Your task to perform on an android device: Open Google Image 0: 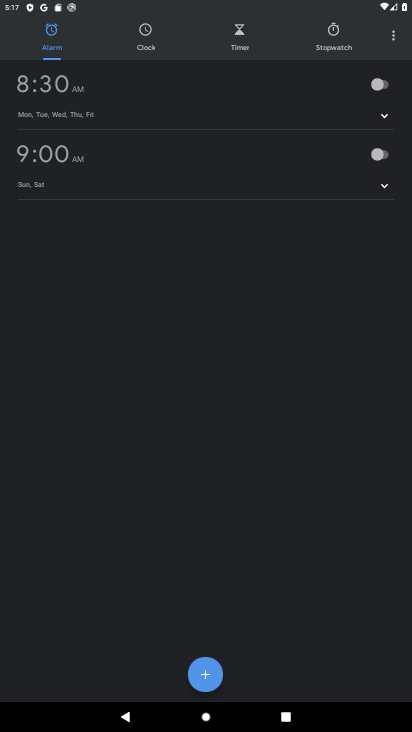
Step 0: press home button
Your task to perform on an android device: Open Google Image 1: 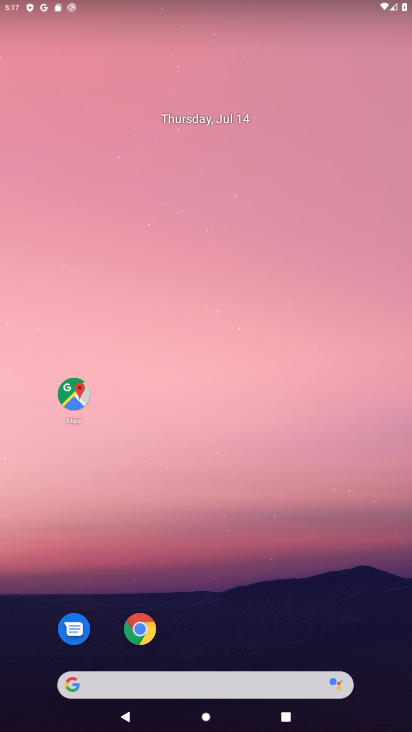
Step 1: drag from (288, 670) to (267, 101)
Your task to perform on an android device: Open Google Image 2: 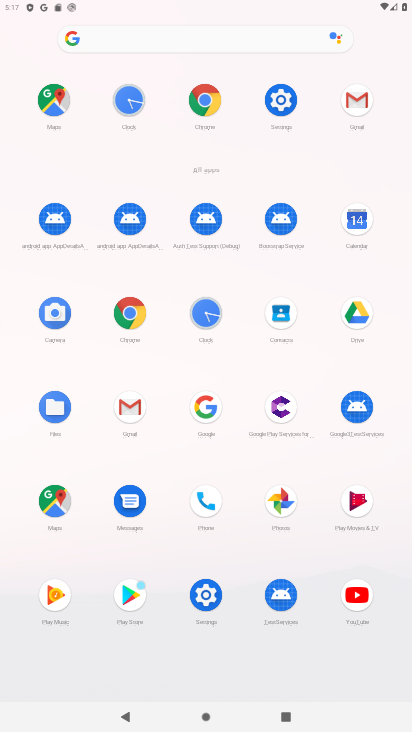
Step 2: click (126, 313)
Your task to perform on an android device: Open Google Image 3: 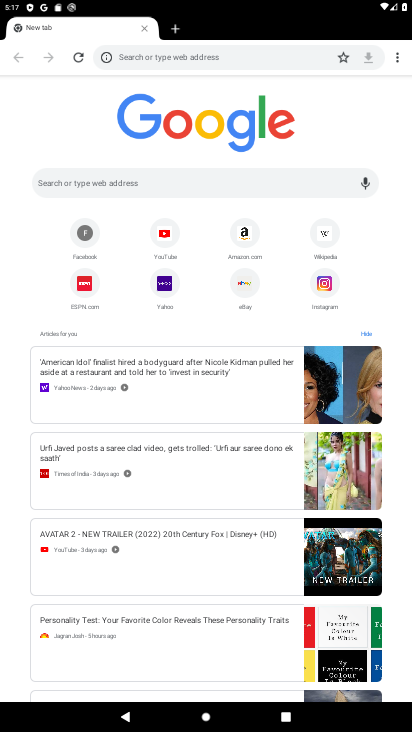
Step 3: task complete